Your task to perform on an android device: Empty the shopping cart on walmart. Add "logitech g502" to the cart on walmart, then select checkout. Image 0: 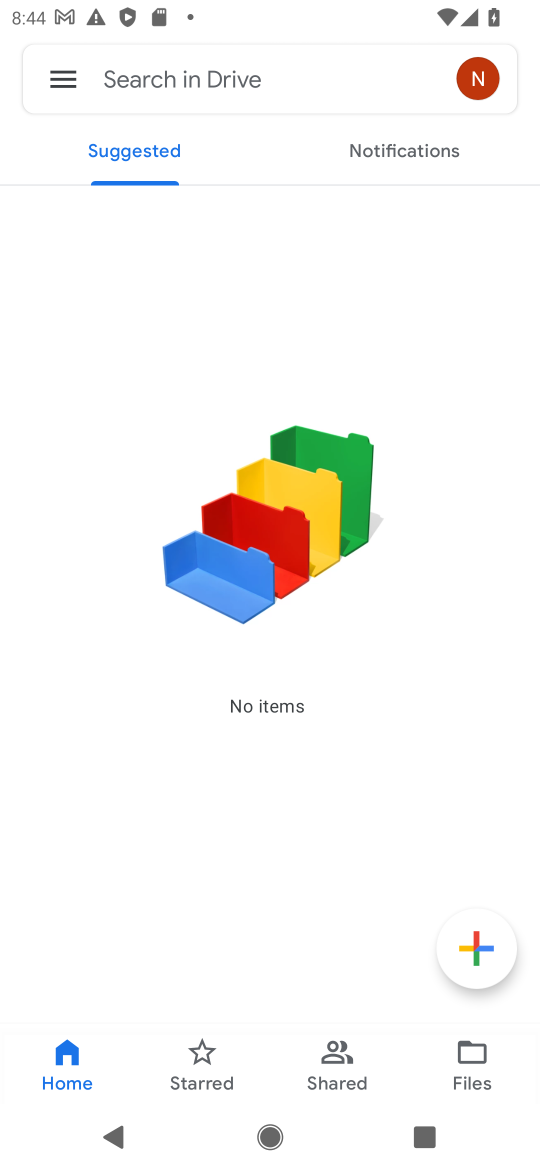
Step 0: press home button
Your task to perform on an android device: Empty the shopping cart on walmart. Add "logitech g502" to the cart on walmart, then select checkout. Image 1: 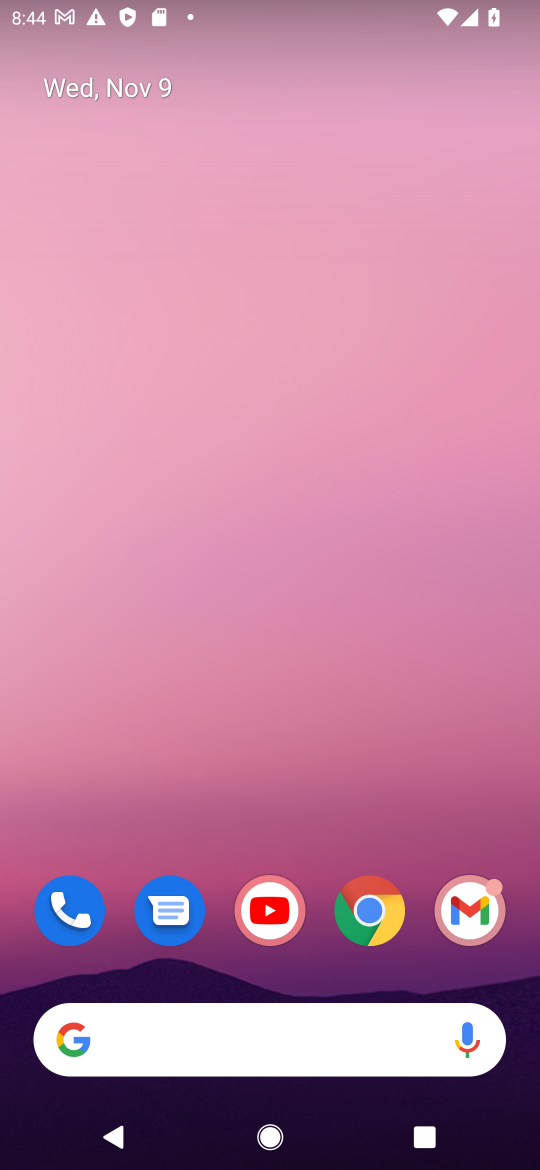
Step 1: click (375, 922)
Your task to perform on an android device: Empty the shopping cart on walmart. Add "logitech g502" to the cart on walmart, then select checkout. Image 2: 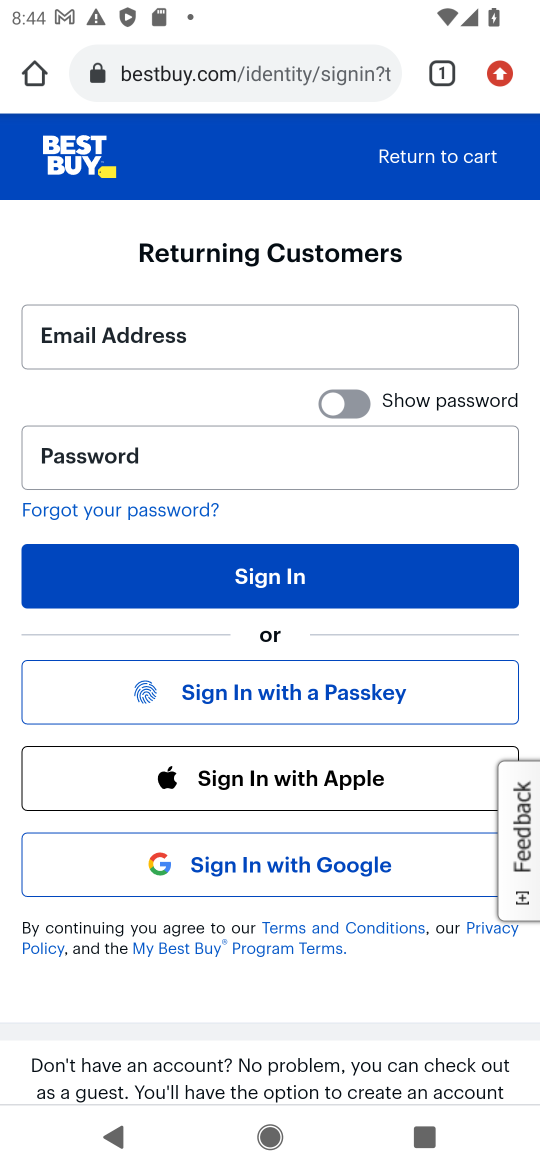
Step 2: click (174, 83)
Your task to perform on an android device: Empty the shopping cart on walmart. Add "logitech g502" to the cart on walmart, then select checkout. Image 3: 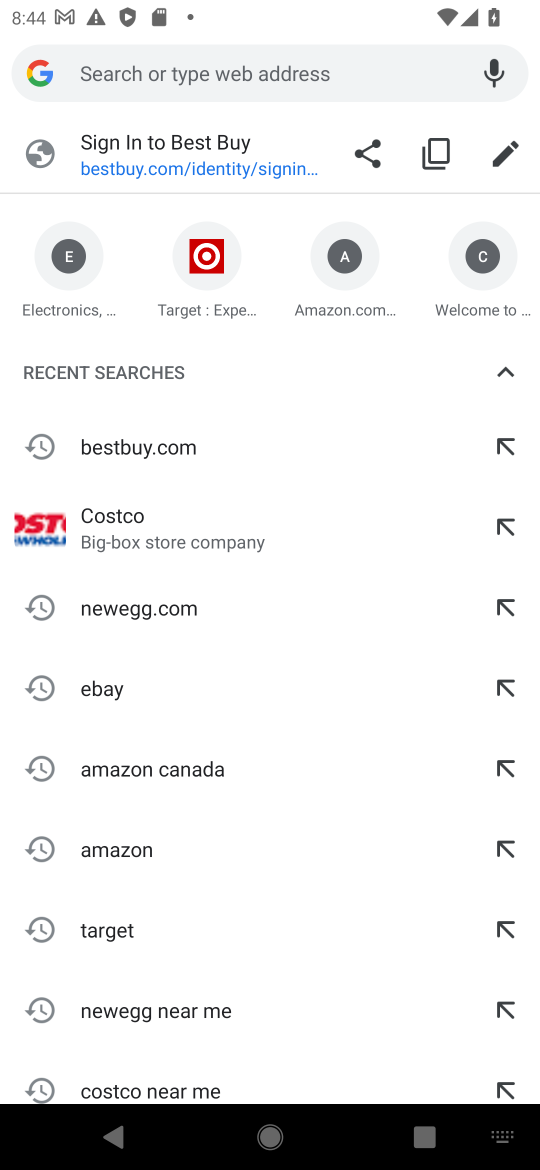
Step 3: type "walmart.com"
Your task to perform on an android device: Empty the shopping cart on walmart. Add "logitech g502" to the cart on walmart, then select checkout. Image 4: 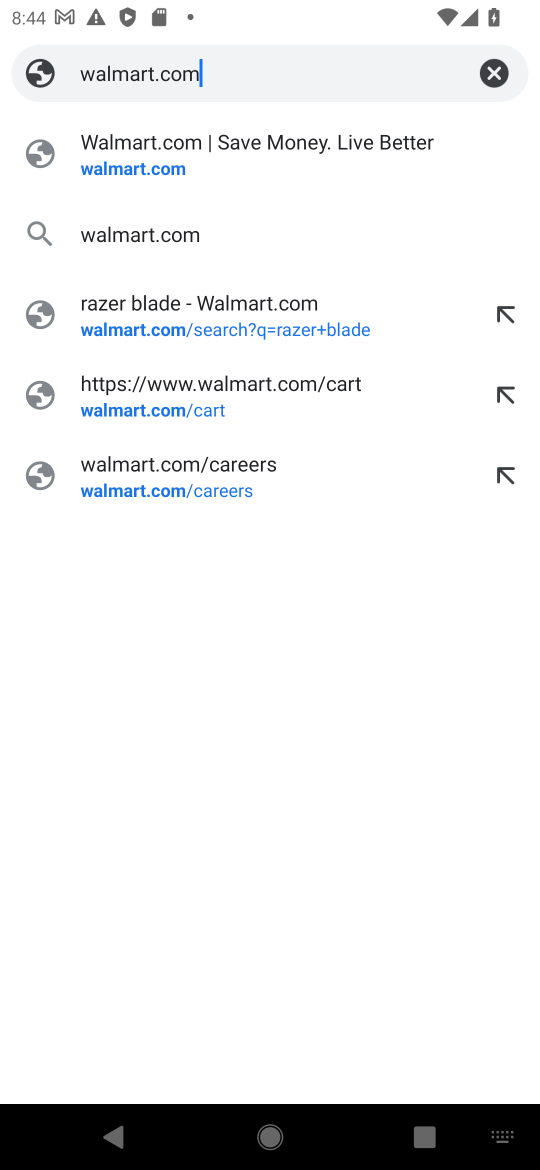
Step 4: click (140, 176)
Your task to perform on an android device: Empty the shopping cart on walmart. Add "logitech g502" to the cart on walmart, then select checkout. Image 5: 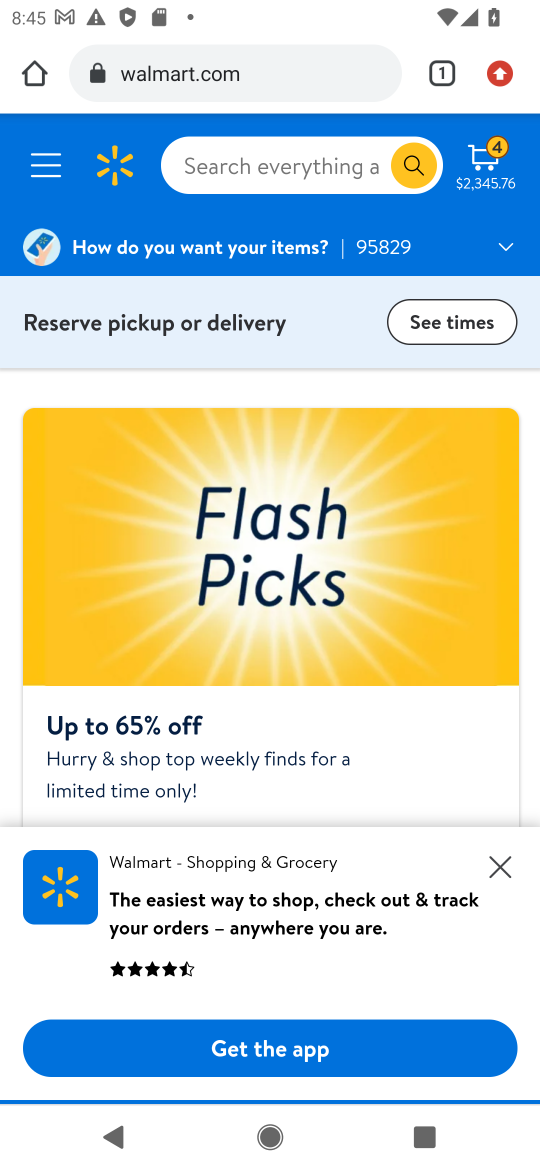
Step 5: click (487, 174)
Your task to perform on an android device: Empty the shopping cart on walmart. Add "logitech g502" to the cart on walmart, then select checkout. Image 6: 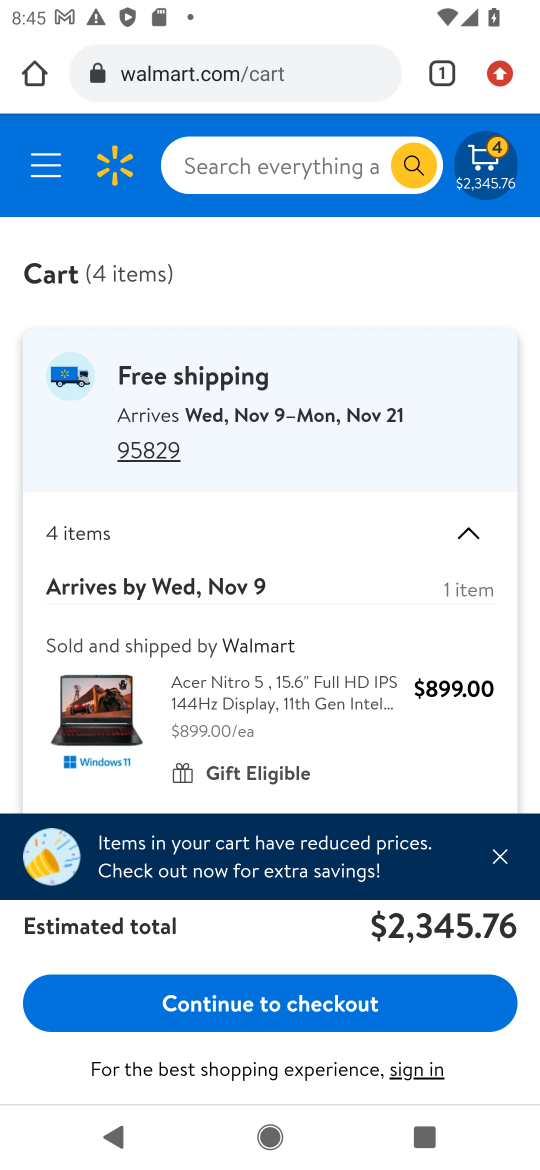
Step 6: drag from (274, 648) to (278, 367)
Your task to perform on an android device: Empty the shopping cart on walmart. Add "logitech g502" to the cart on walmart, then select checkout. Image 7: 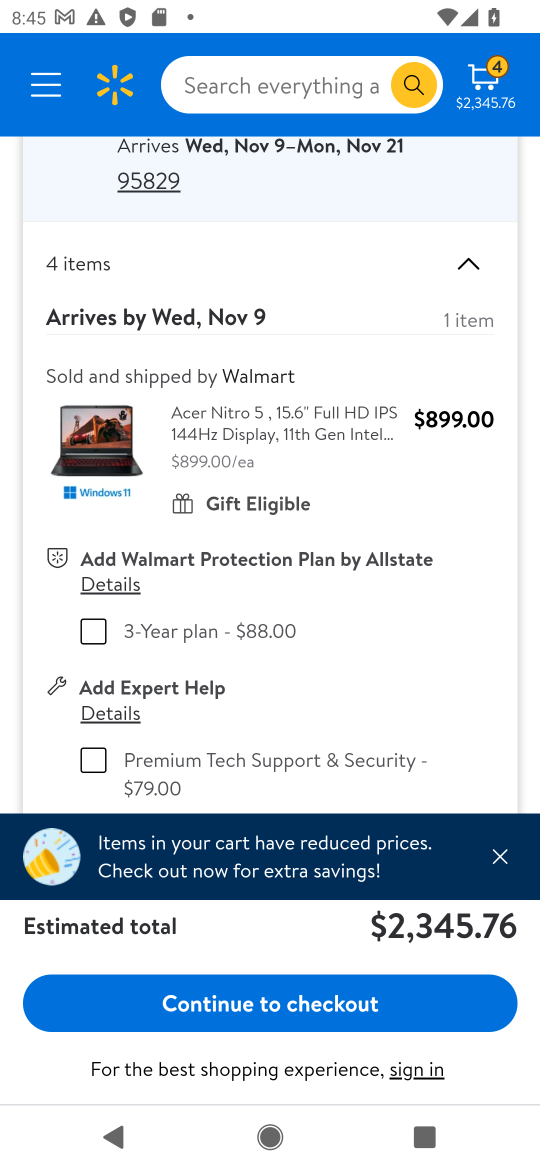
Step 7: drag from (274, 501) to (277, 314)
Your task to perform on an android device: Empty the shopping cart on walmart. Add "logitech g502" to the cart on walmart, then select checkout. Image 8: 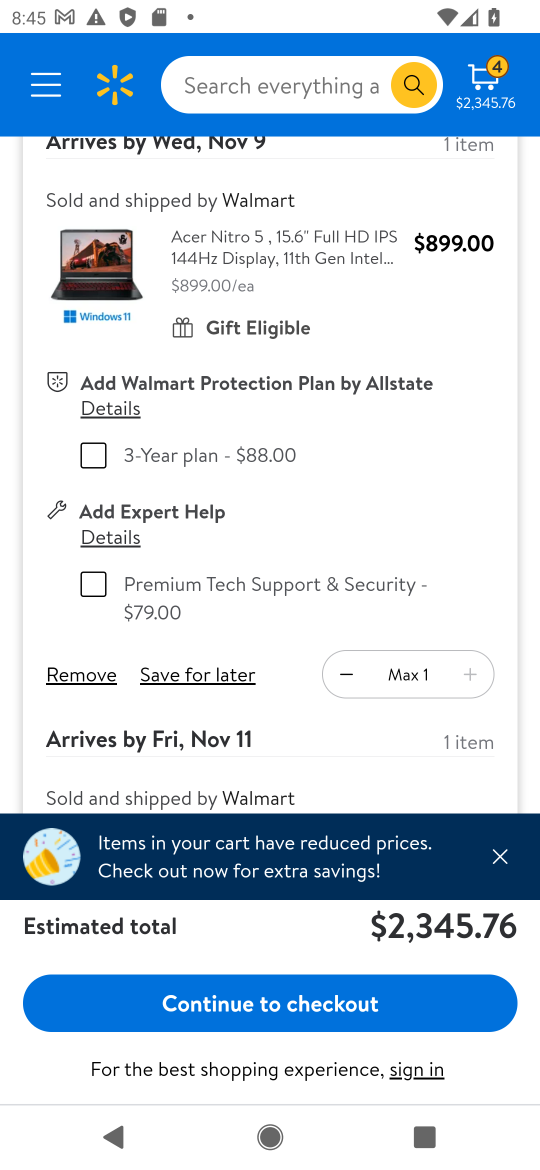
Step 8: click (91, 684)
Your task to perform on an android device: Empty the shopping cart on walmart. Add "logitech g502" to the cart on walmart, then select checkout. Image 9: 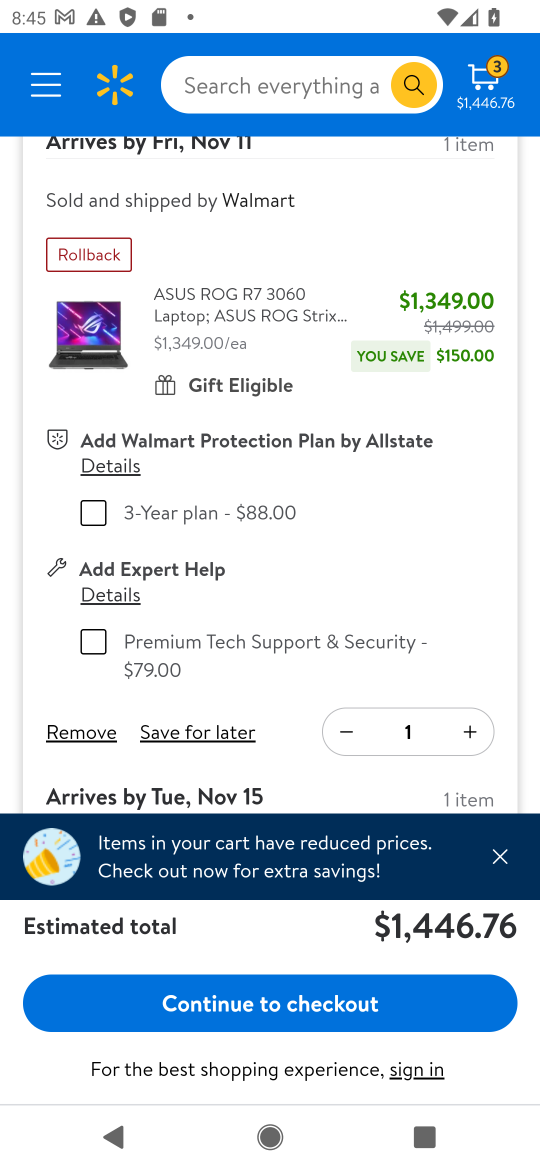
Step 9: click (85, 739)
Your task to perform on an android device: Empty the shopping cart on walmart. Add "logitech g502" to the cart on walmart, then select checkout. Image 10: 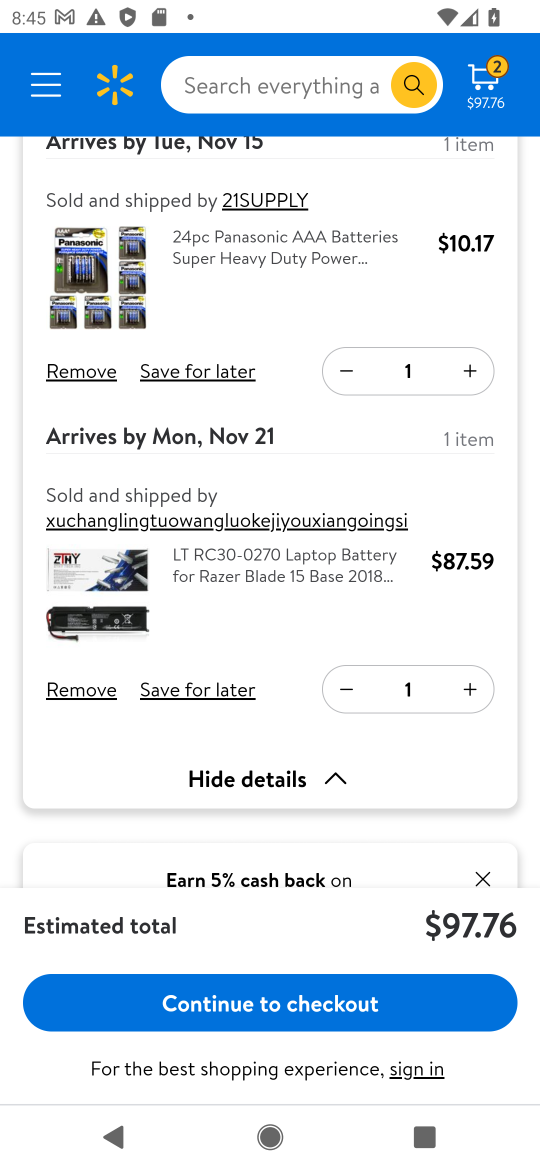
Step 10: click (75, 695)
Your task to perform on an android device: Empty the shopping cart on walmart. Add "logitech g502" to the cart on walmart, then select checkout. Image 11: 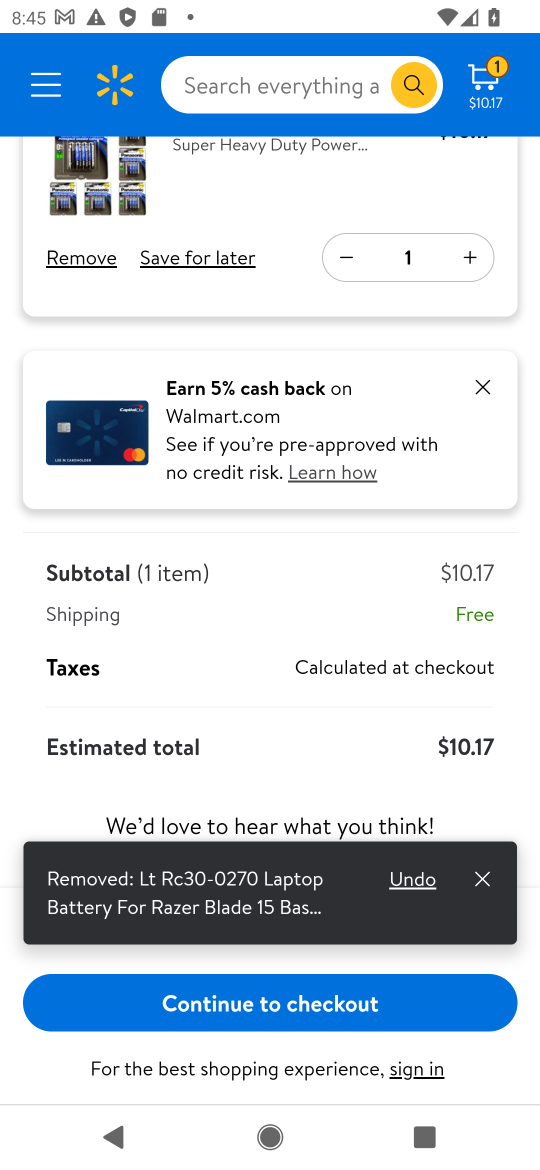
Step 11: click (75, 263)
Your task to perform on an android device: Empty the shopping cart on walmart. Add "logitech g502" to the cart on walmart, then select checkout. Image 12: 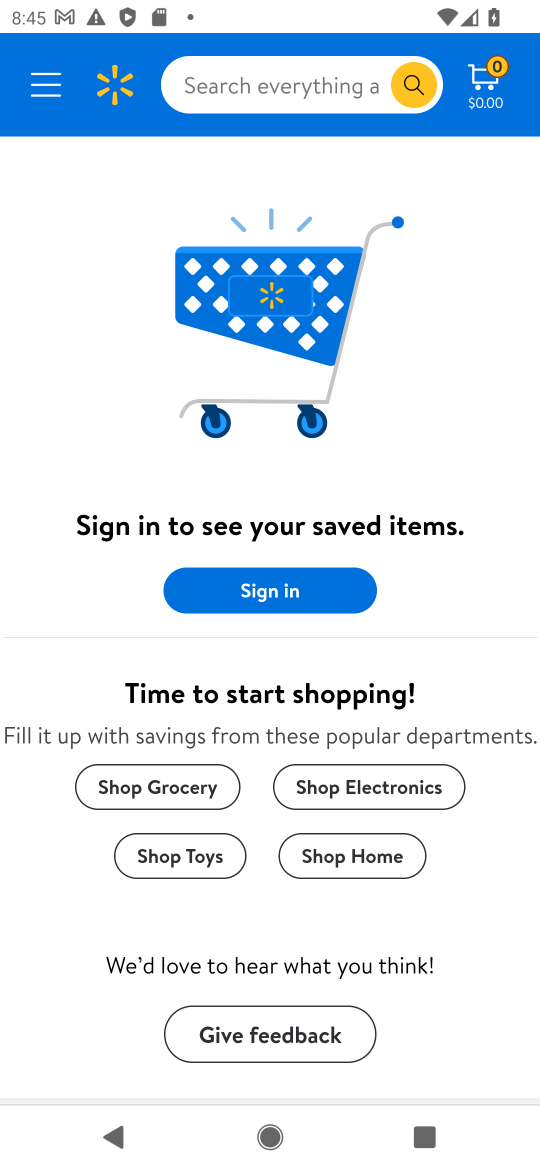
Step 12: click (248, 91)
Your task to perform on an android device: Empty the shopping cart on walmart. Add "logitech g502" to the cart on walmart, then select checkout. Image 13: 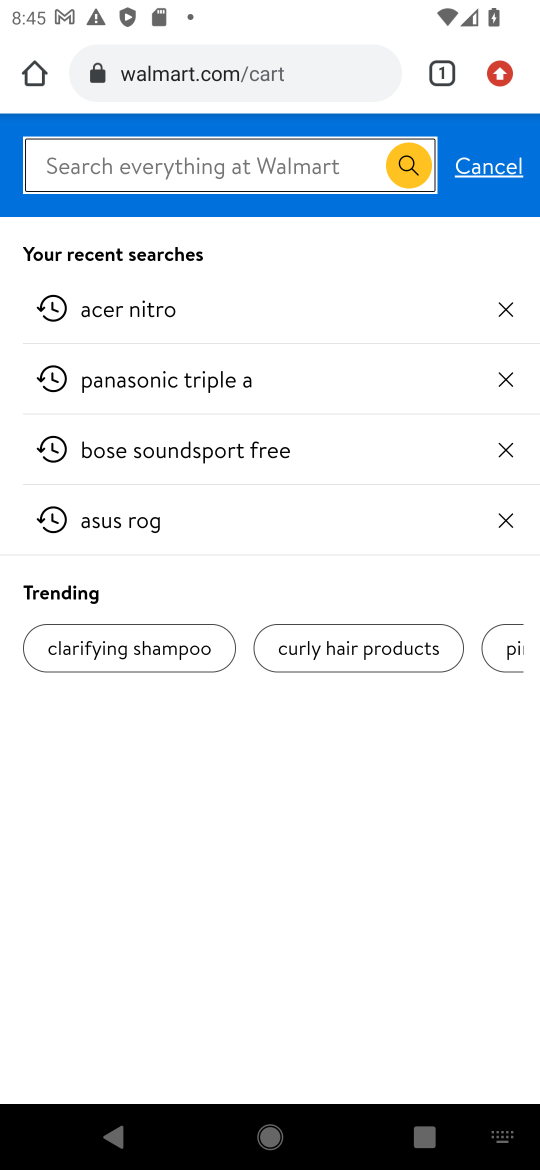
Step 13: type "logitech g502"
Your task to perform on an android device: Empty the shopping cart on walmart. Add "logitech g502" to the cart on walmart, then select checkout. Image 14: 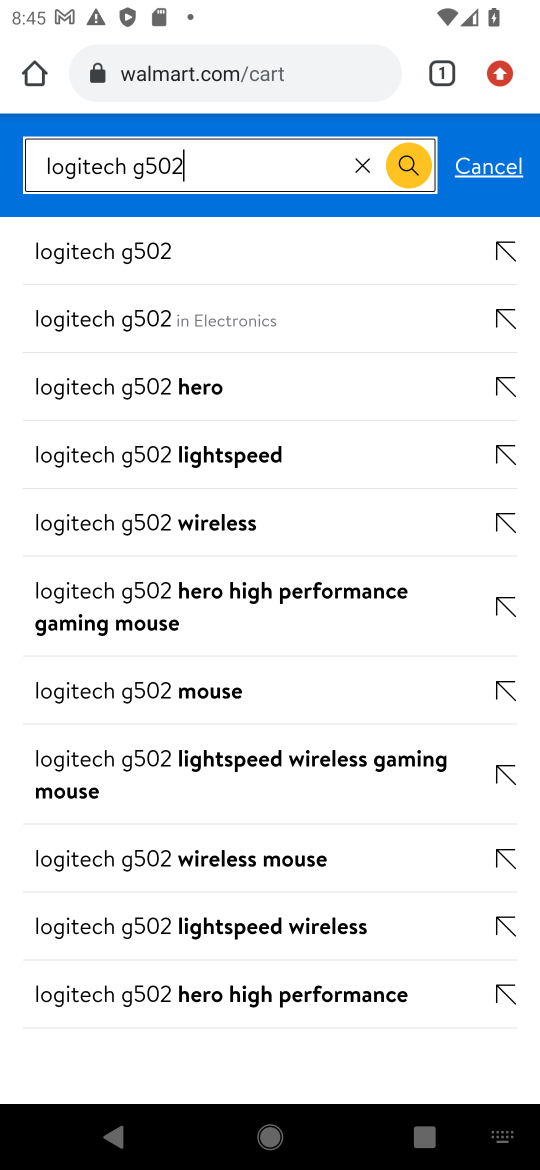
Step 14: click (112, 250)
Your task to perform on an android device: Empty the shopping cart on walmart. Add "logitech g502" to the cart on walmart, then select checkout. Image 15: 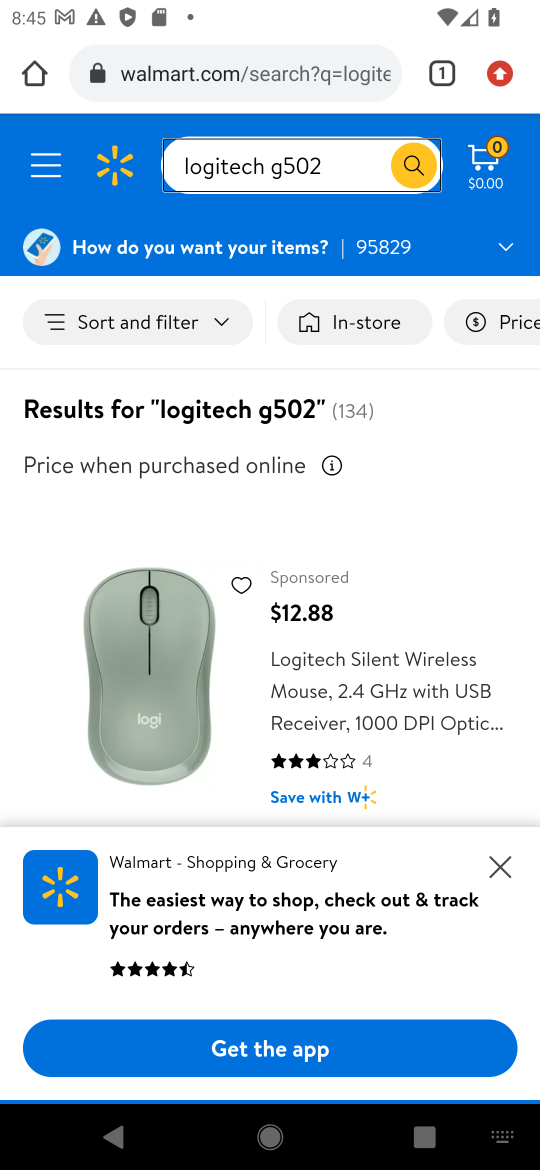
Step 15: drag from (224, 764) to (199, 411)
Your task to perform on an android device: Empty the shopping cart on walmart. Add "logitech g502" to the cart on walmart, then select checkout. Image 16: 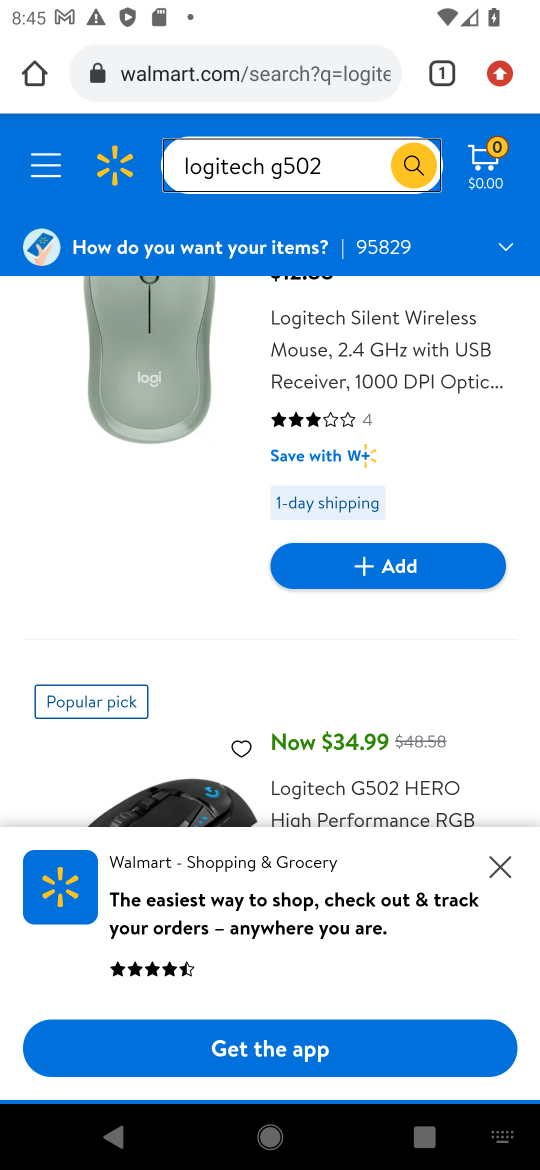
Step 16: drag from (223, 656) to (231, 385)
Your task to perform on an android device: Empty the shopping cart on walmart. Add "logitech g502" to the cart on walmart, then select checkout. Image 17: 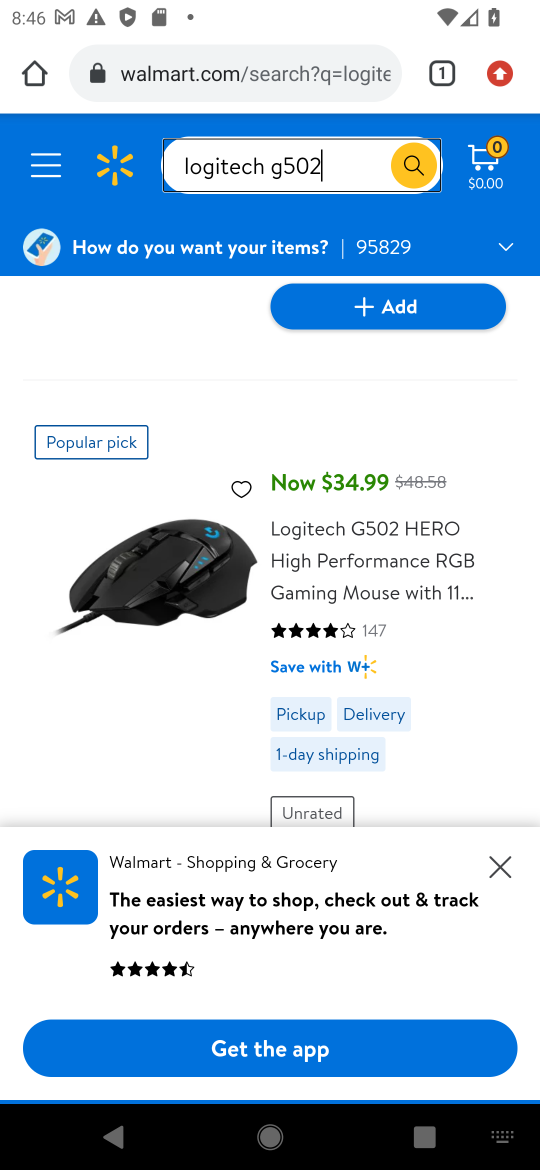
Step 17: drag from (315, 565) to (316, 447)
Your task to perform on an android device: Empty the shopping cart on walmart. Add "logitech g502" to the cart on walmart, then select checkout. Image 18: 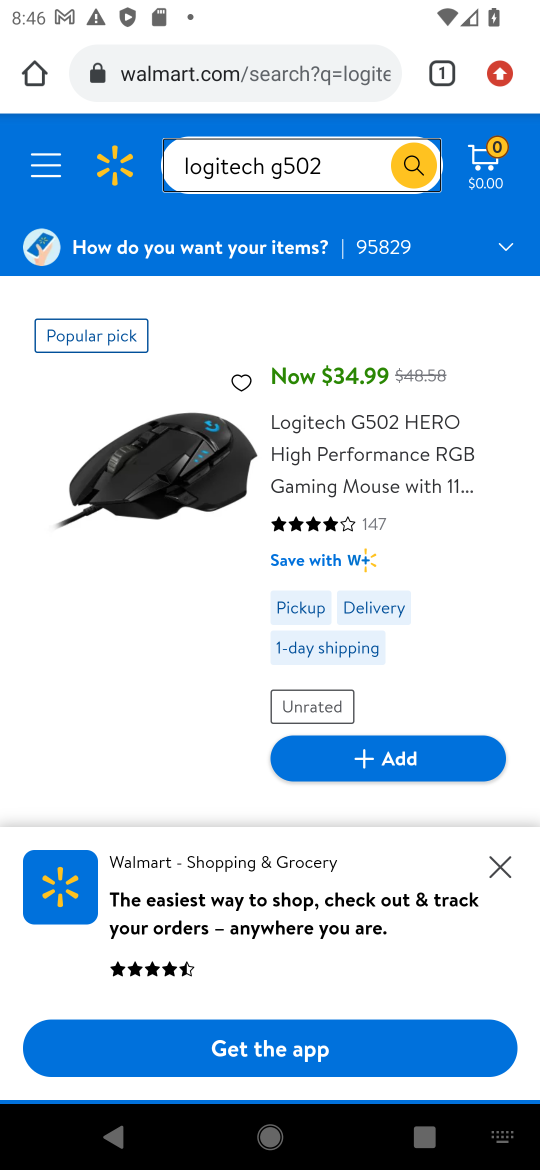
Step 18: click (395, 769)
Your task to perform on an android device: Empty the shopping cart on walmart. Add "logitech g502" to the cart on walmart, then select checkout. Image 19: 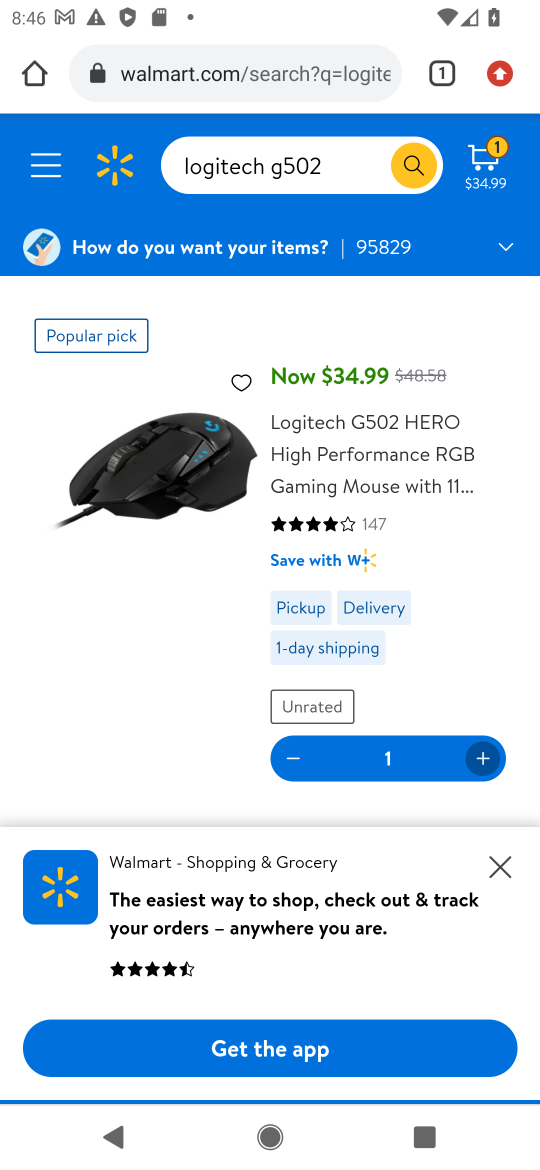
Step 19: click (481, 174)
Your task to perform on an android device: Empty the shopping cart on walmart. Add "logitech g502" to the cart on walmart, then select checkout. Image 20: 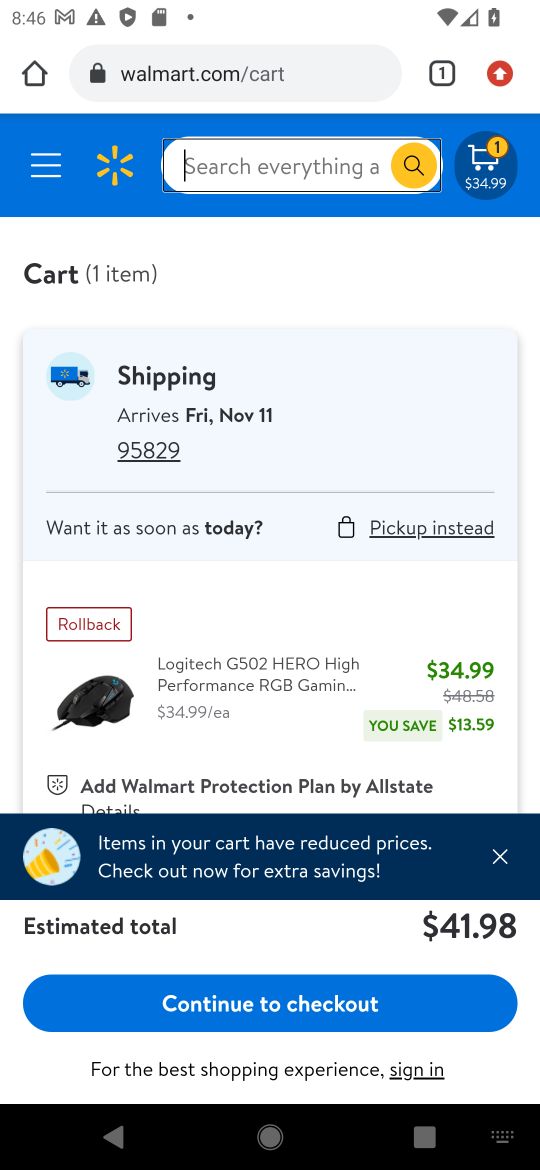
Step 20: click (253, 1006)
Your task to perform on an android device: Empty the shopping cart on walmart. Add "logitech g502" to the cart on walmart, then select checkout. Image 21: 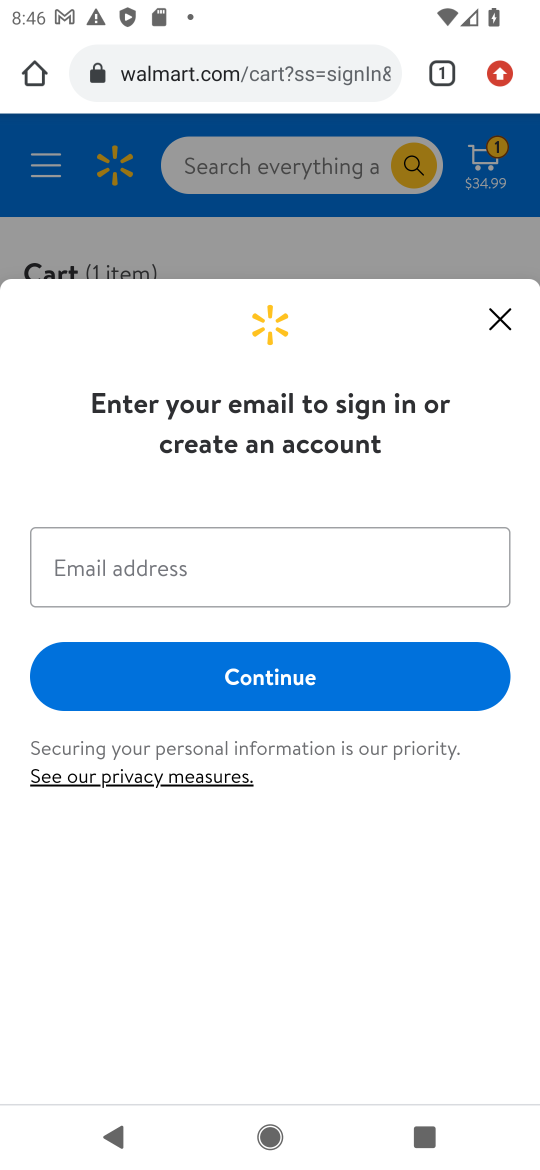
Step 21: task complete